Your task to perform on an android device: Show me the alarms in the clock app Image 0: 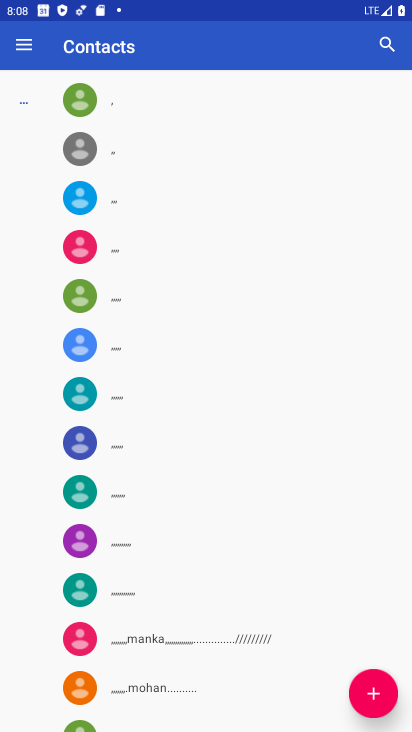
Step 0: press home button
Your task to perform on an android device: Show me the alarms in the clock app Image 1: 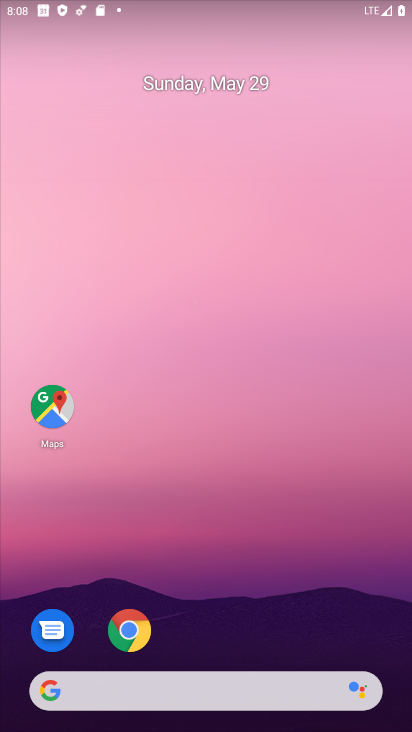
Step 1: drag from (193, 651) to (124, 150)
Your task to perform on an android device: Show me the alarms in the clock app Image 2: 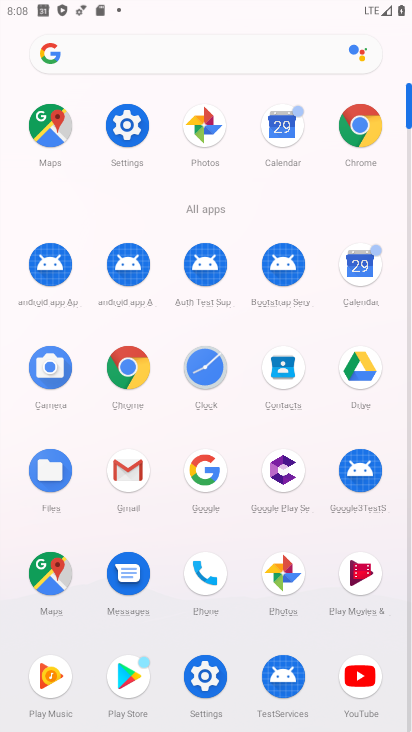
Step 2: click (198, 369)
Your task to perform on an android device: Show me the alarms in the clock app Image 3: 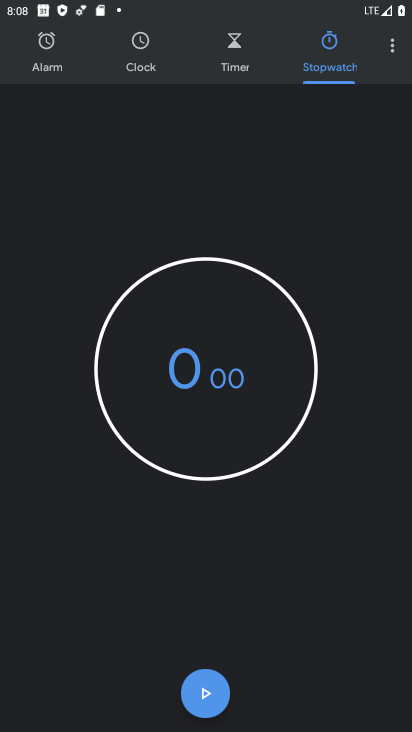
Step 3: click (48, 57)
Your task to perform on an android device: Show me the alarms in the clock app Image 4: 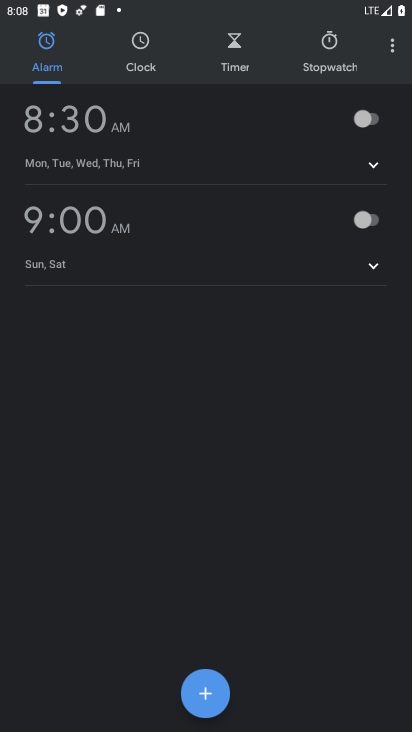
Step 4: task complete